Your task to perform on an android device: toggle improve location accuracy Image 0: 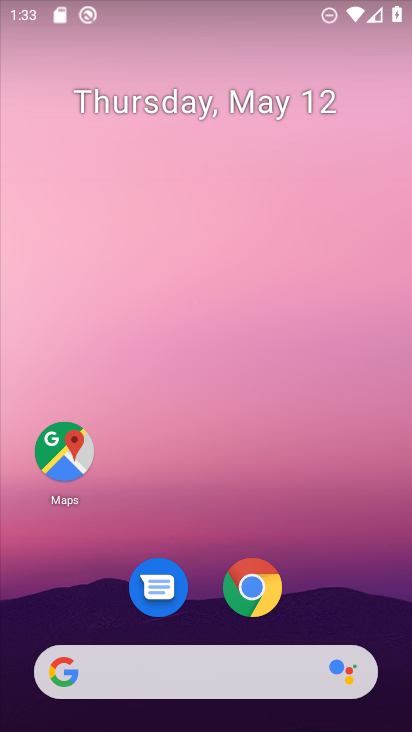
Step 0: drag from (340, 586) to (260, 134)
Your task to perform on an android device: toggle improve location accuracy Image 1: 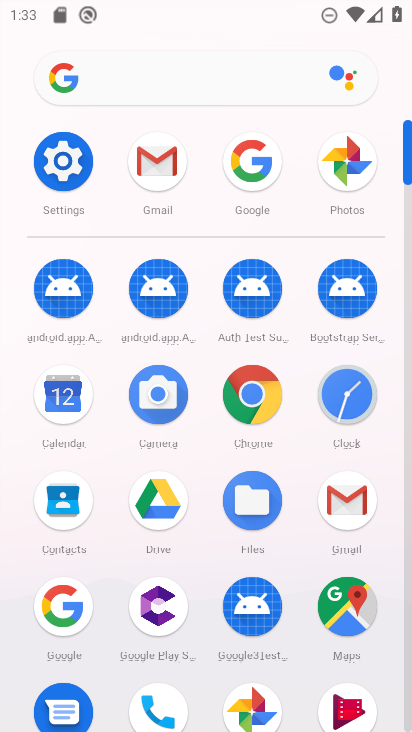
Step 1: click (64, 164)
Your task to perform on an android device: toggle improve location accuracy Image 2: 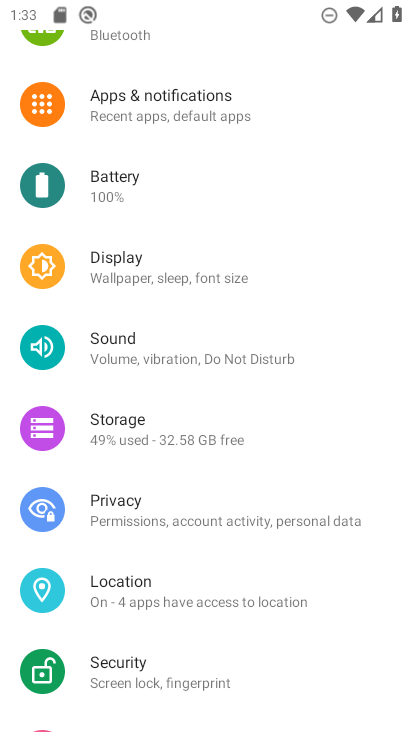
Step 2: click (153, 584)
Your task to perform on an android device: toggle improve location accuracy Image 3: 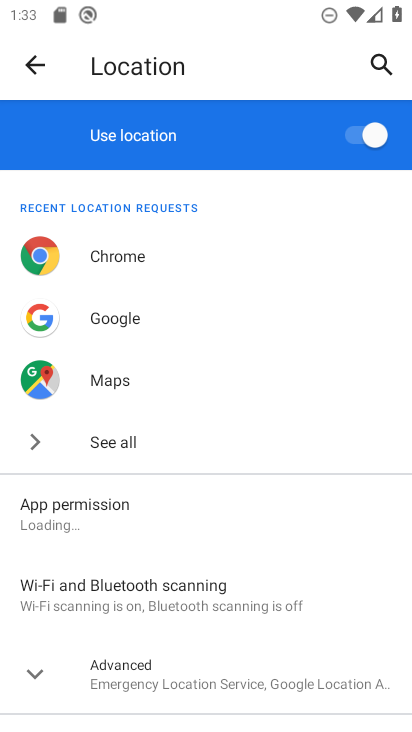
Step 3: click (166, 675)
Your task to perform on an android device: toggle improve location accuracy Image 4: 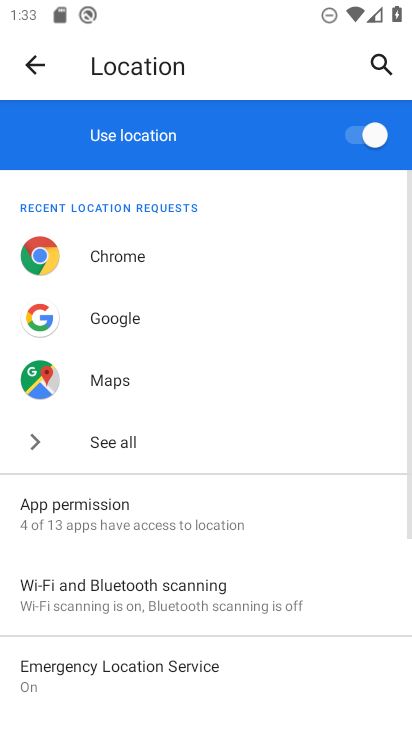
Step 4: drag from (193, 562) to (255, 404)
Your task to perform on an android device: toggle improve location accuracy Image 5: 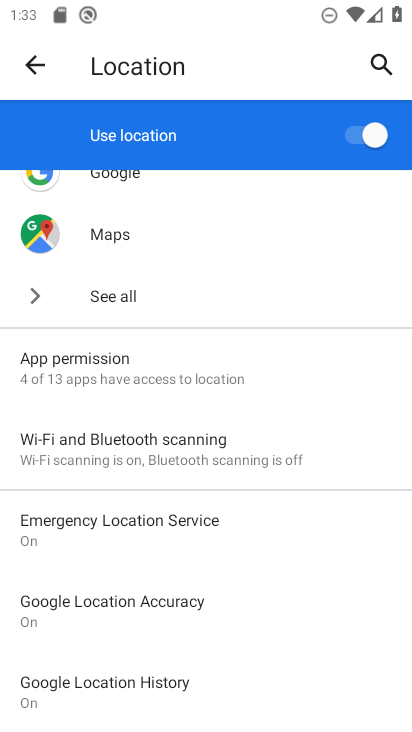
Step 5: click (134, 611)
Your task to perform on an android device: toggle improve location accuracy Image 6: 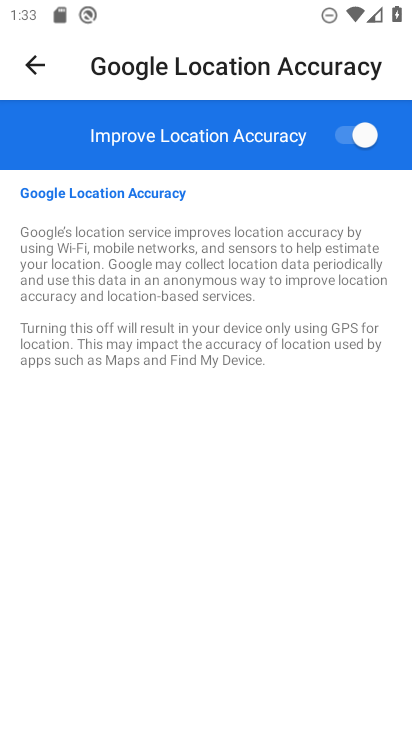
Step 6: click (356, 133)
Your task to perform on an android device: toggle improve location accuracy Image 7: 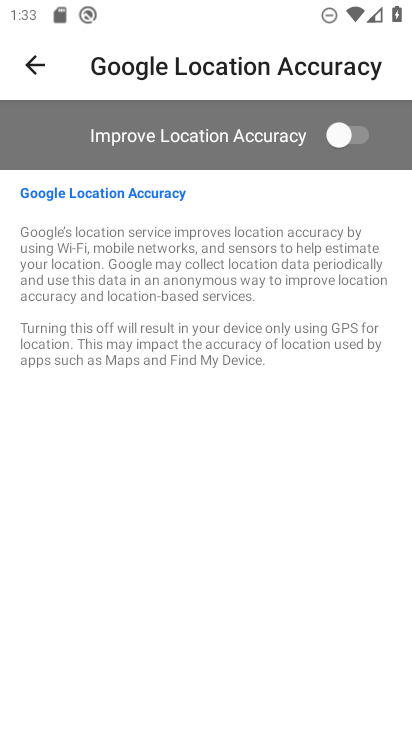
Step 7: task complete